Your task to perform on an android device: Go to Yahoo.com Image 0: 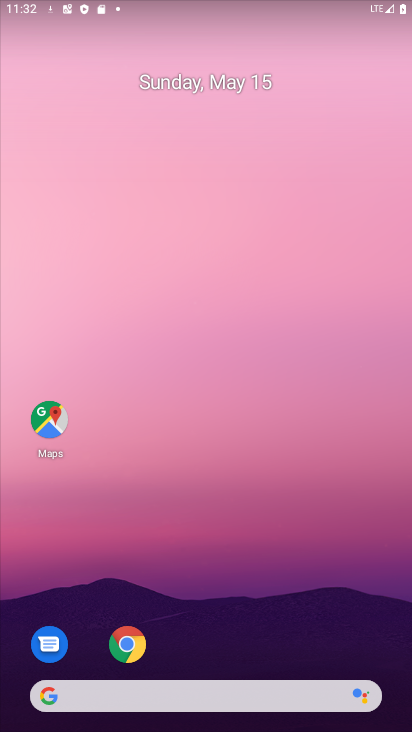
Step 0: drag from (256, 709) to (225, 360)
Your task to perform on an android device: Go to Yahoo.com Image 1: 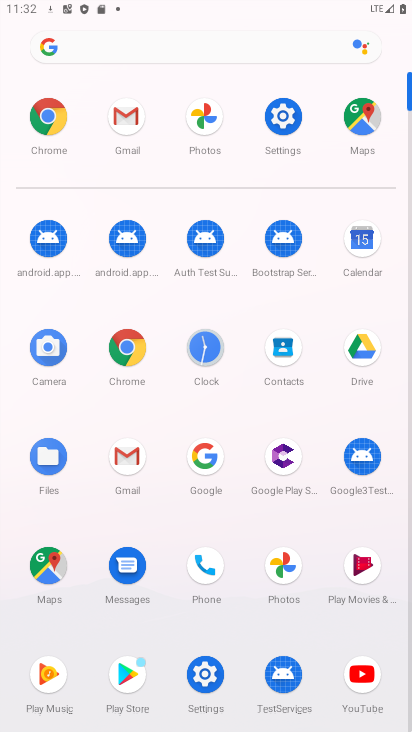
Step 1: click (56, 127)
Your task to perform on an android device: Go to Yahoo.com Image 2: 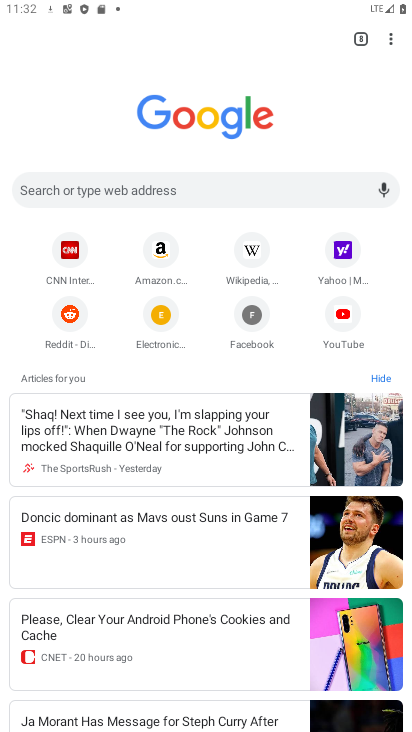
Step 2: click (354, 259)
Your task to perform on an android device: Go to Yahoo.com Image 3: 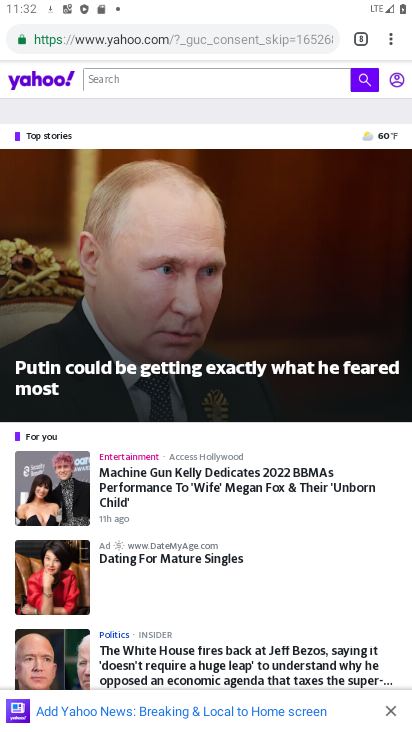
Step 3: task complete